Your task to perform on an android device: Open eBay Image 0: 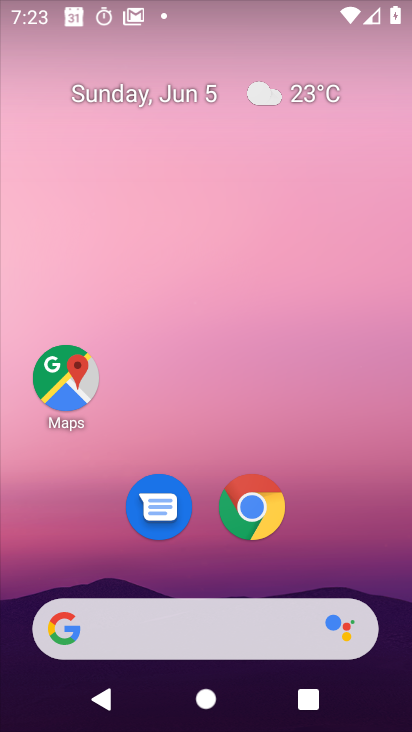
Step 0: drag from (280, 658) to (214, 216)
Your task to perform on an android device: Open eBay Image 1: 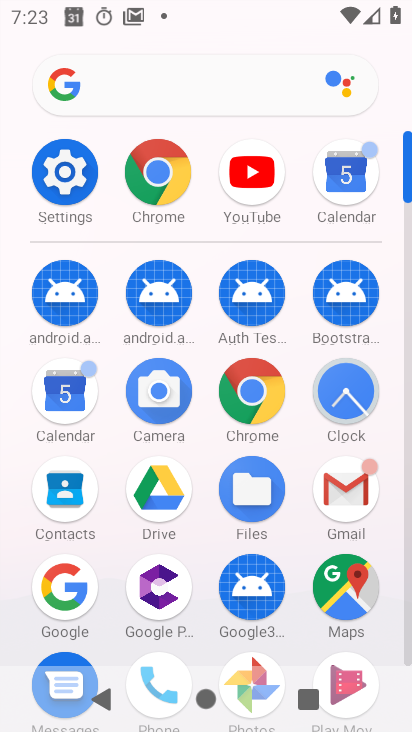
Step 1: click (146, 177)
Your task to perform on an android device: Open eBay Image 2: 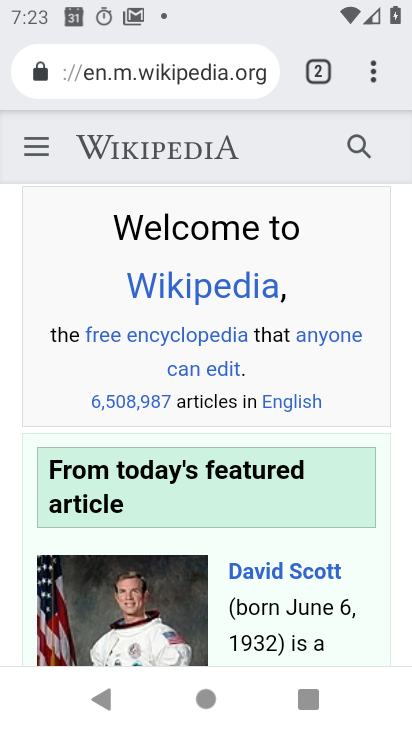
Step 2: click (304, 75)
Your task to perform on an android device: Open eBay Image 3: 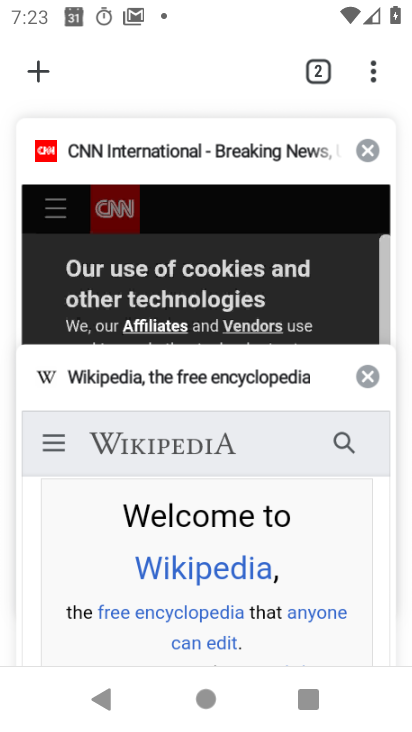
Step 3: click (30, 63)
Your task to perform on an android device: Open eBay Image 4: 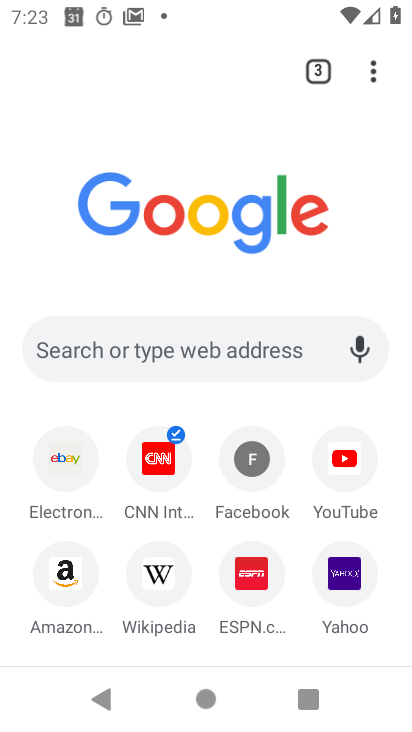
Step 4: click (90, 480)
Your task to perform on an android device: Open eBay Image 5: 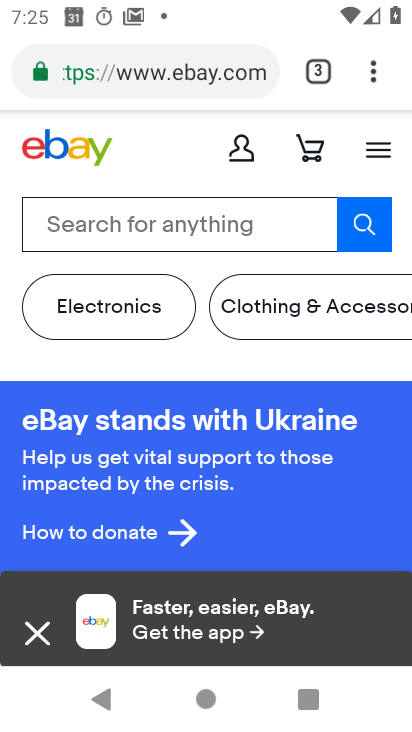
Step 5: task complete